Your task to perform on an android device: find which apps use the phone's location Image 0: 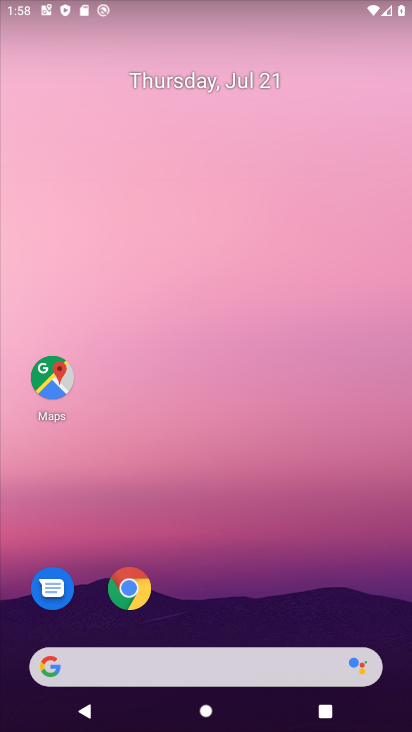
Step 0: drag from (223, 613) to (214, 64)
Your task to perform on an android device: find which apps use the phone's location Image 1: 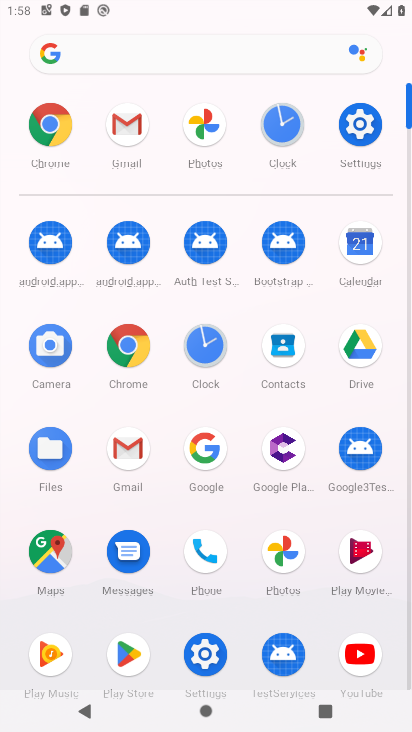
Step 1: click (354, 142)
Your task to perform on an android device: find which apps use the phone's location Image 2: 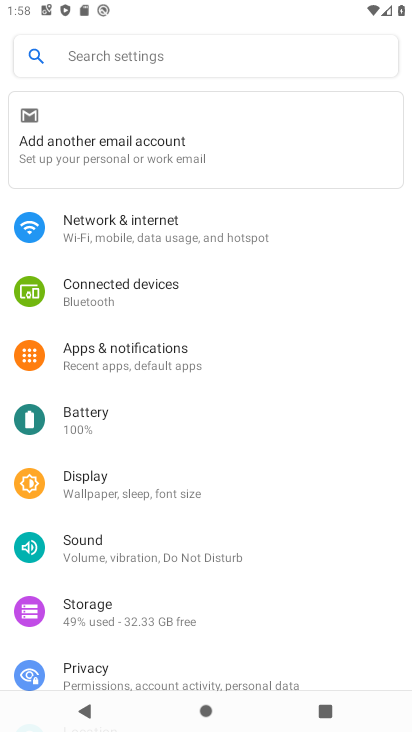
Step 2: drag from (126, 647) to (109, 194)
Your task to perform on an android device: find which apps use the phone's location Image 3: 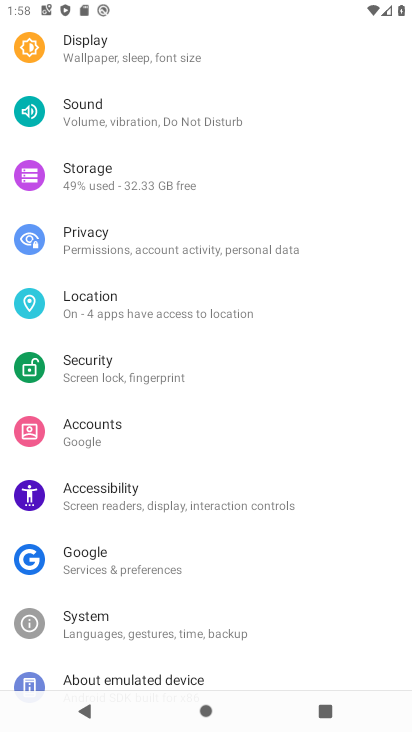
Step 3: click (94, 312)
Your task to perform on an android device: find which apps use the phone's location Image 4: 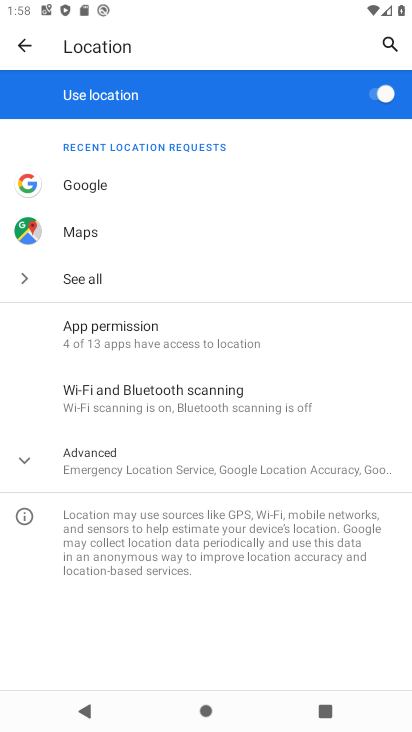
Step 4: click (88, 280)
Your task to perform on an android device: find which apps use the phone's location Image 5: 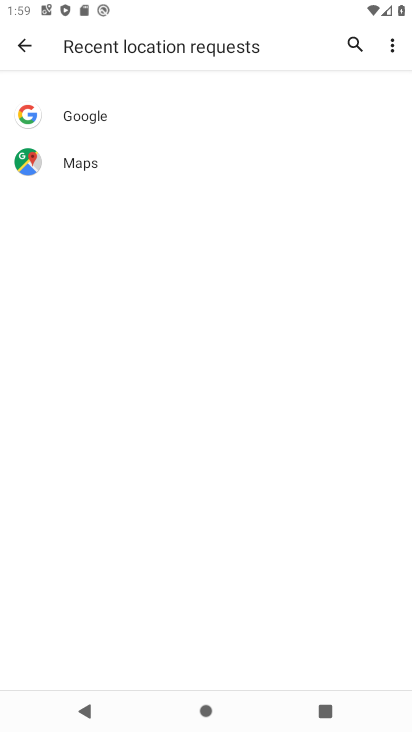
Step 5: click (25, 48)
Your task to perform on an android device: find which apps use the phone's location Image 6: 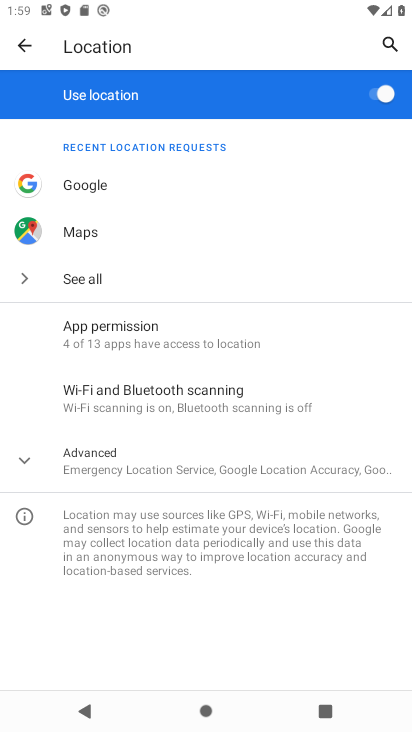
Step 6: task complete